Your task to perform on an android device: Go to Google maps Image 0: 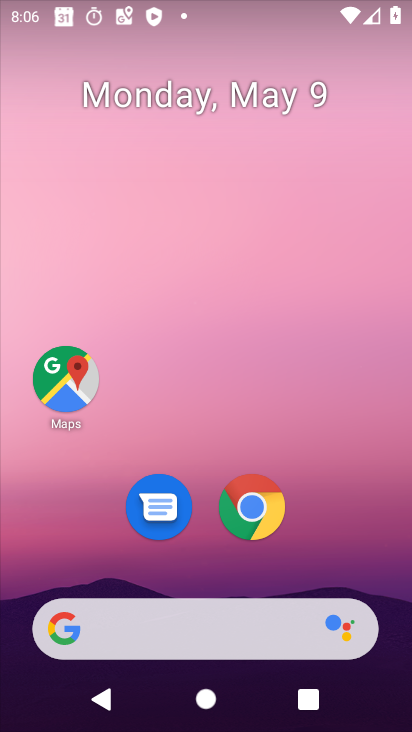
Step 0: drag from (252, 668) to (252, 176)
Your task to perform on an android device: Go to Google maps Image 1: 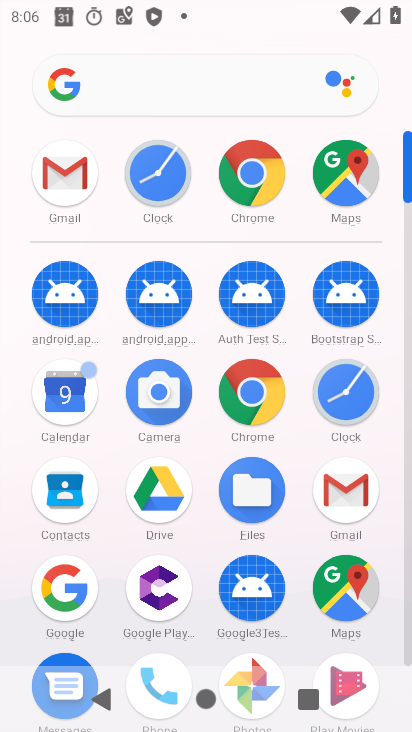
Step 1: click (355, 197)
Your task to perform on an android device: Go to Google maps Image 2: 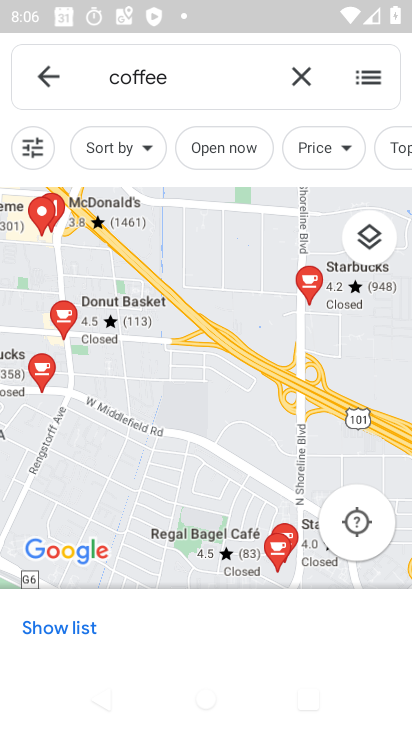
Step 2: click (43, 78)
Your task to perform on an android device: Go to Google maps Image 3: 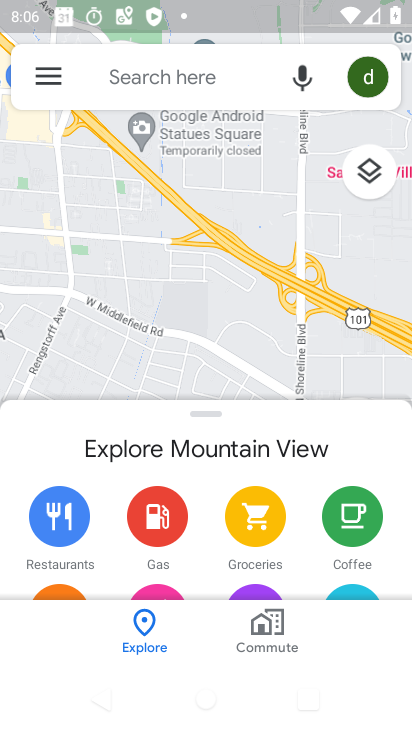
Step 3: click (222, 377)
Your task to perform on an android device: Go to Google maps Image 4: 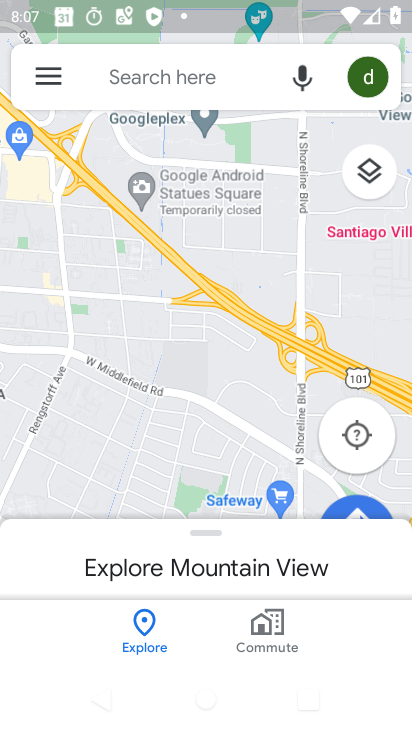
Step 4: task complete